Your task to perform on an android device: Open the calendar app, open the side menu, and click the "Day" option Image 0: 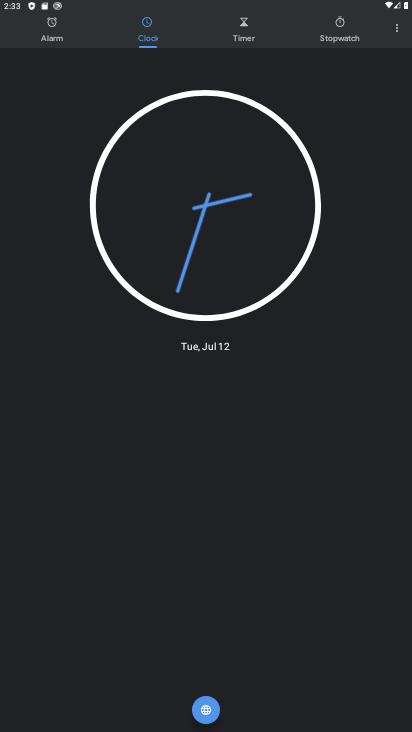
Step 0: press home button
Your task to perform on an android device: Open the calendar app, open the side menu, and click the "Day" option Image 1: 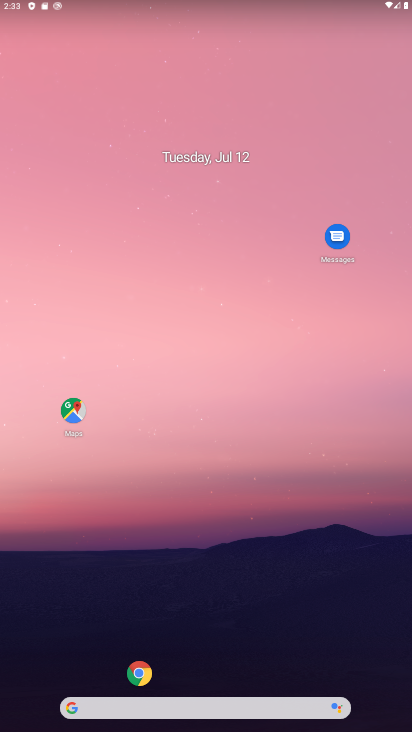
Step 1: drag from (25, 693) to (193, 97)
Your task to perform on an android device: Open the calendar app, open the side menu, and click the "Day" option Image 2: 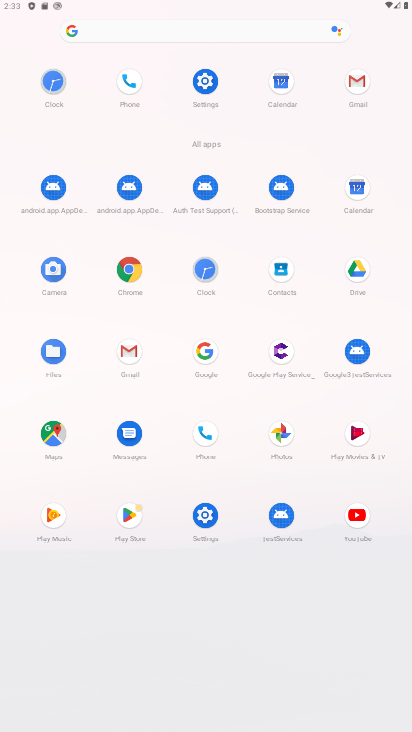
Step 2: click (374, 190)
Your task to perform on an android device: Open the calendar app, open the side menu, and click the "Day" option Image 3: 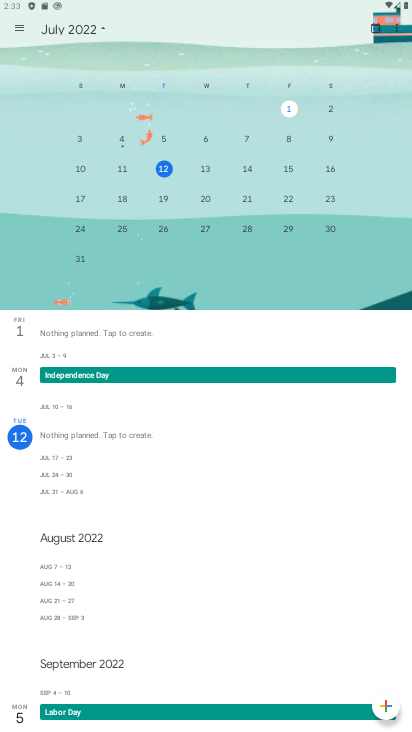
Step 3: click (19, 21)
Your task to perform on an android device: Open the calendar app, open the side menu, and click the "Day" option Image 4: 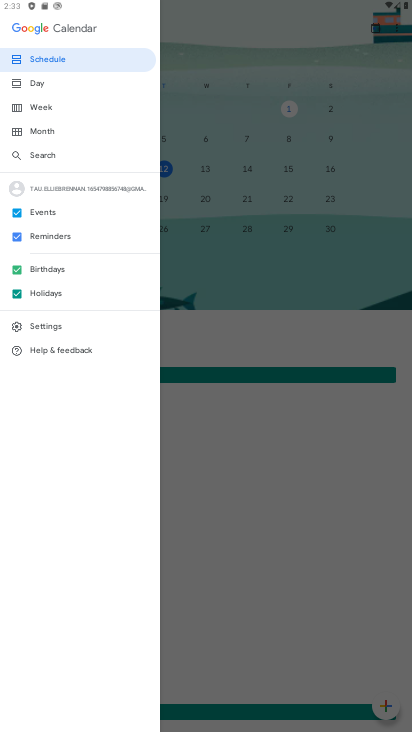
Step 4: click (56, 78)
Your task to perform on an android device: Open the calendar app, open the side menu, and click the "Day" option Image 5: 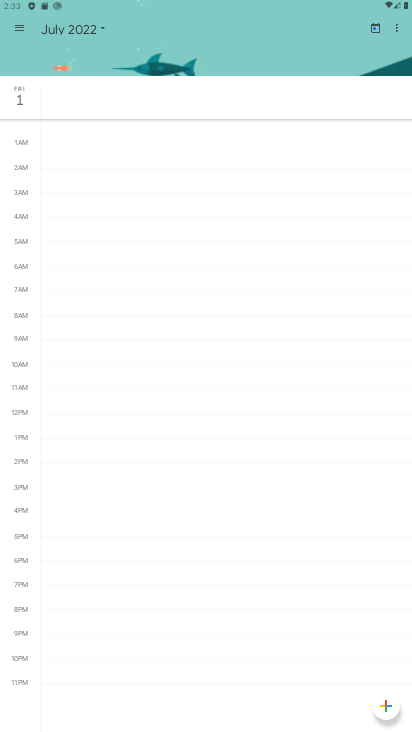
Step 5: task complete